Your task to perform on an android device: install app "PlayWell" Image 0: 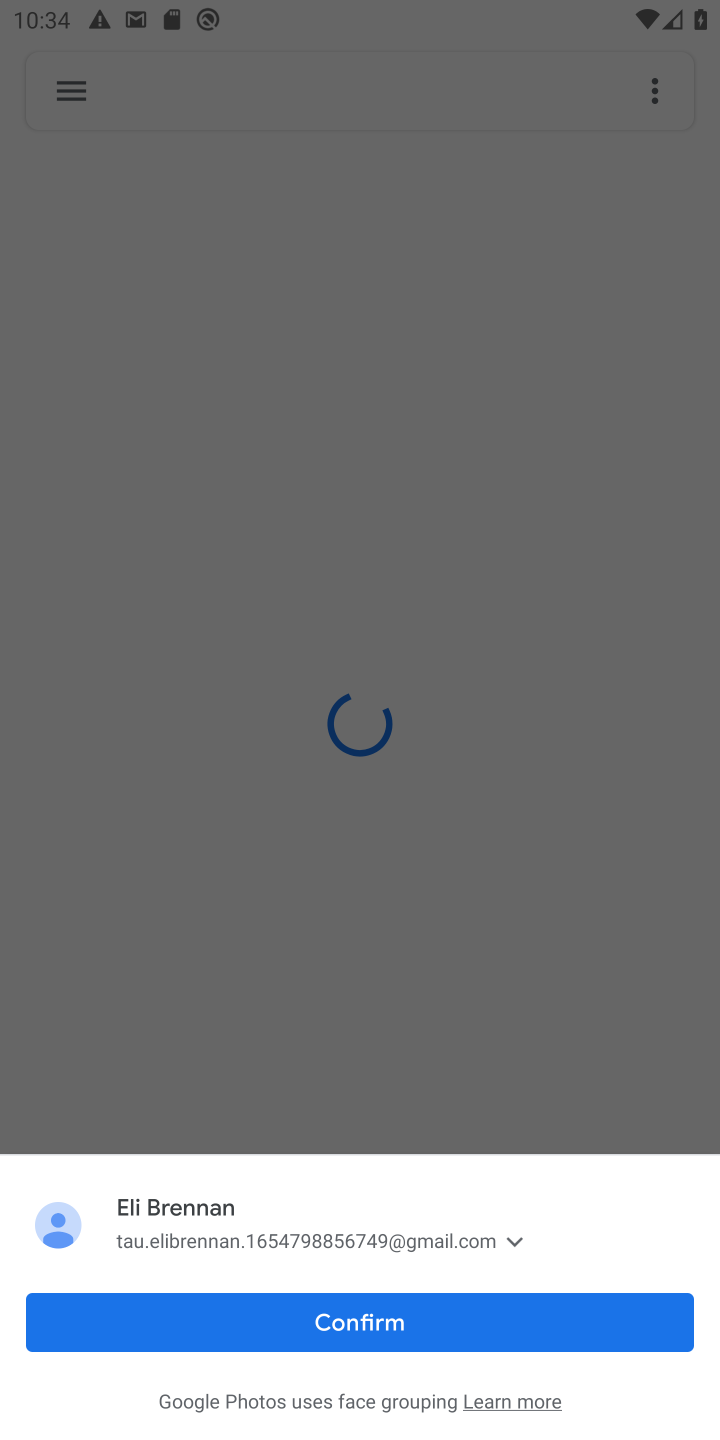
Step 0: press home button
Your task to perform on an android device: install app "PlayWell" Image 1: 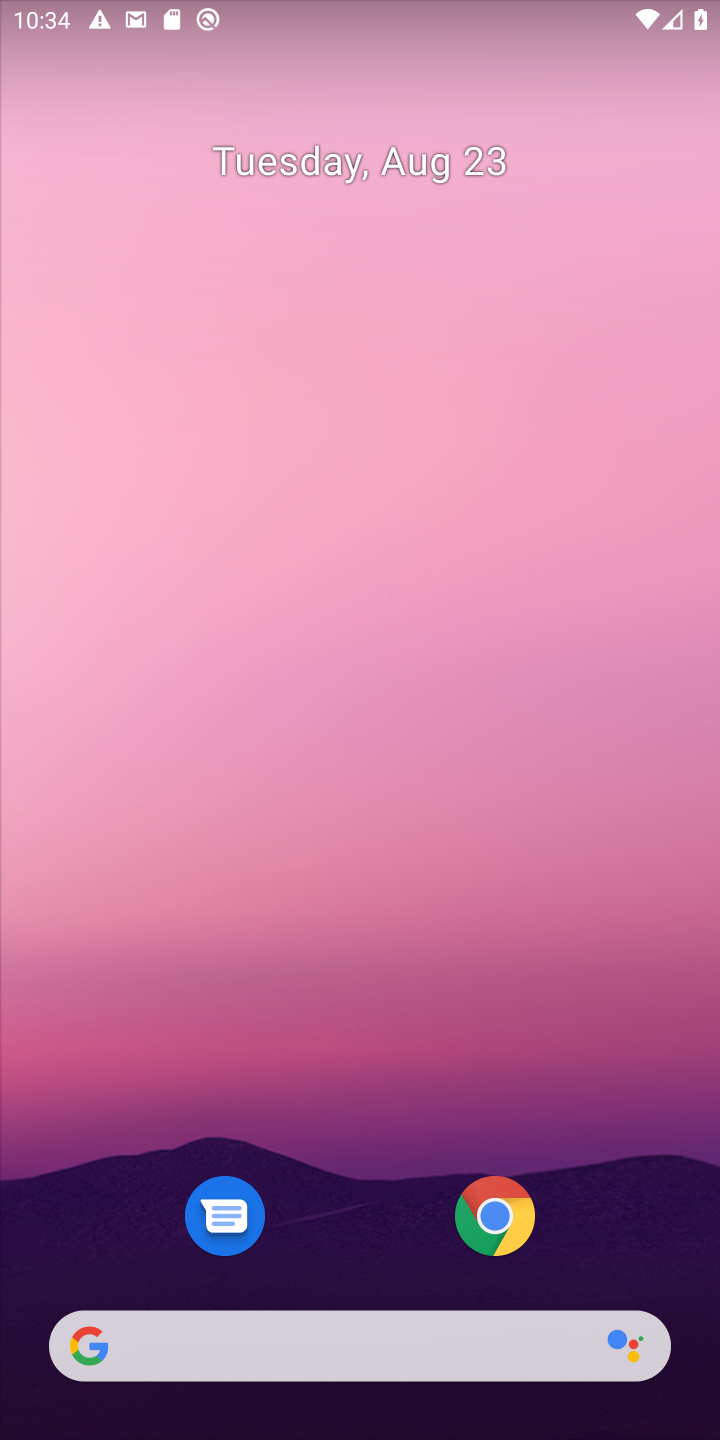
Step 1: drag from (337, 1319) to (305, 84)
Your task to perform on an android device: install app "PlayWell" Image 2: 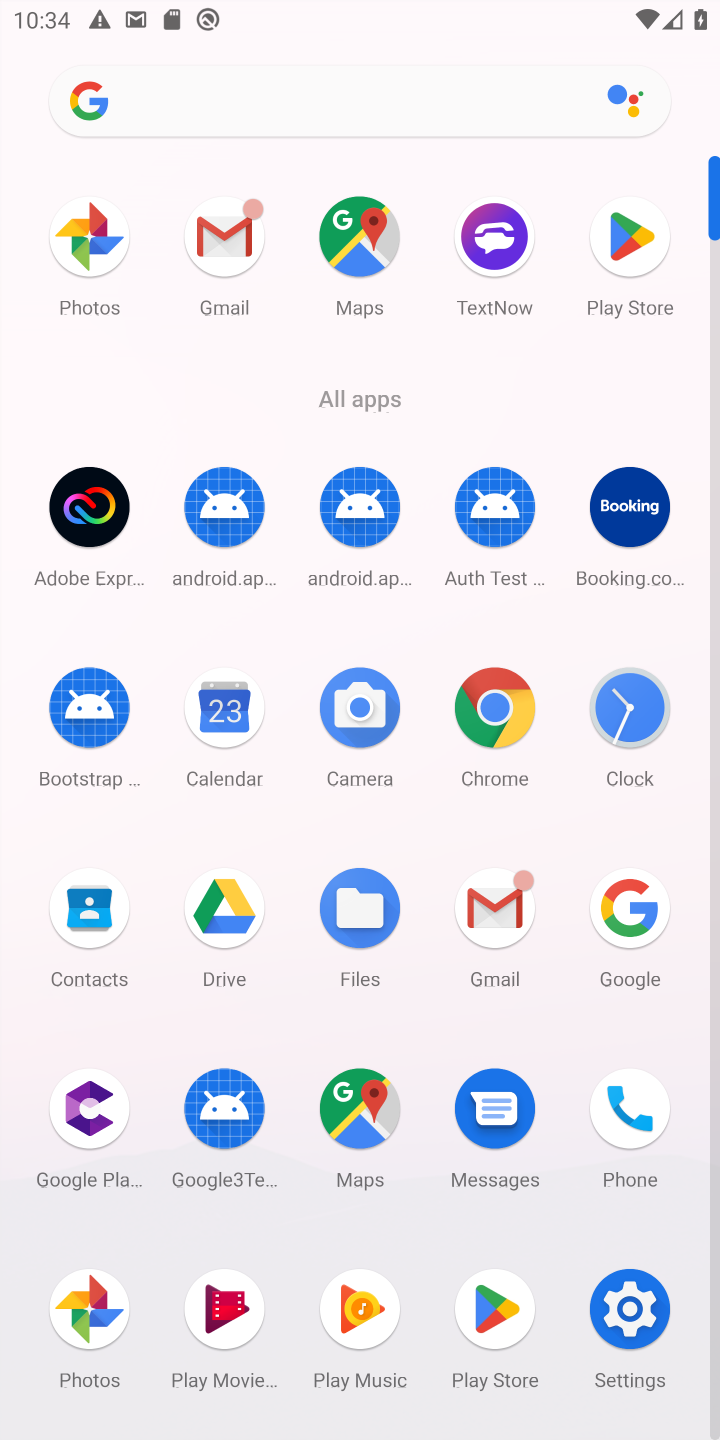
Step 2: click (628, 251)
Your task to perform on an android device: install app "PlayWell" Image 3: 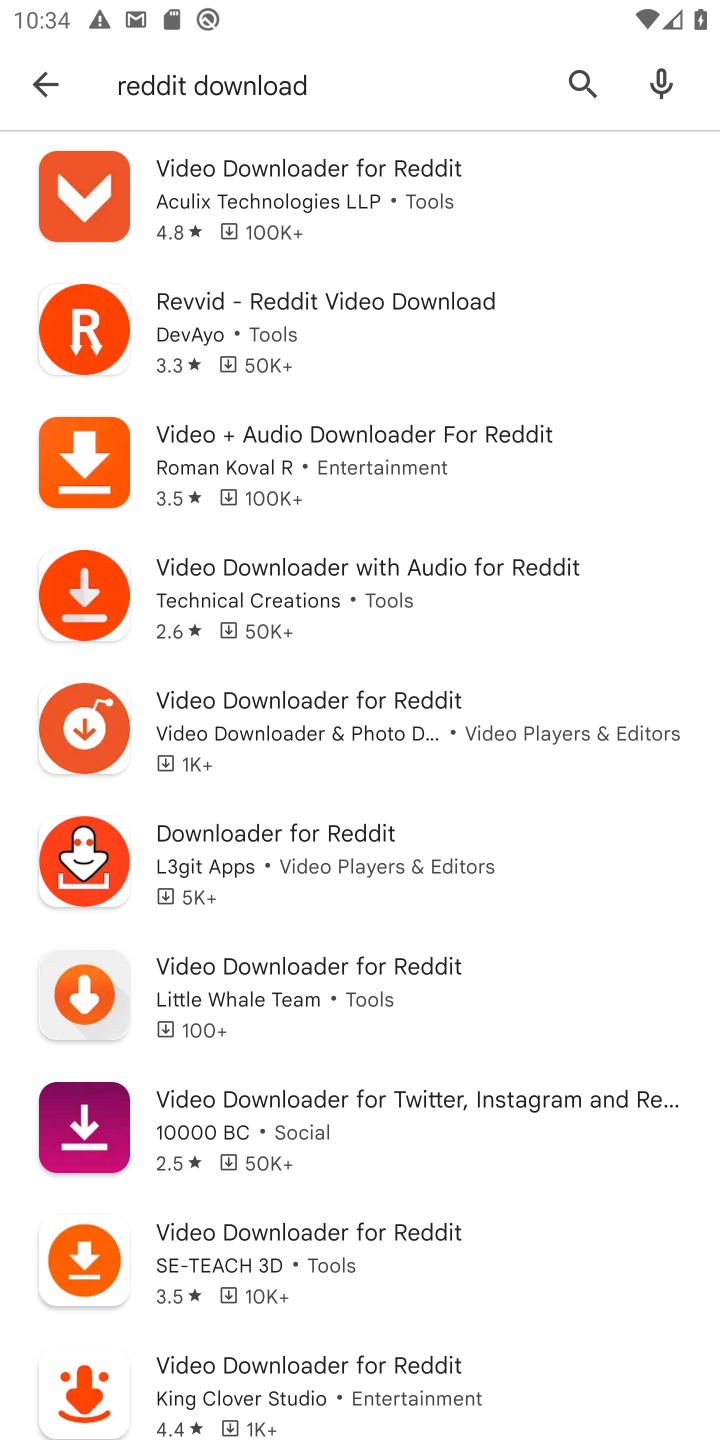
Step 3: press back button
Your task to perform on an android device: install app "PlayWell" Image 4: 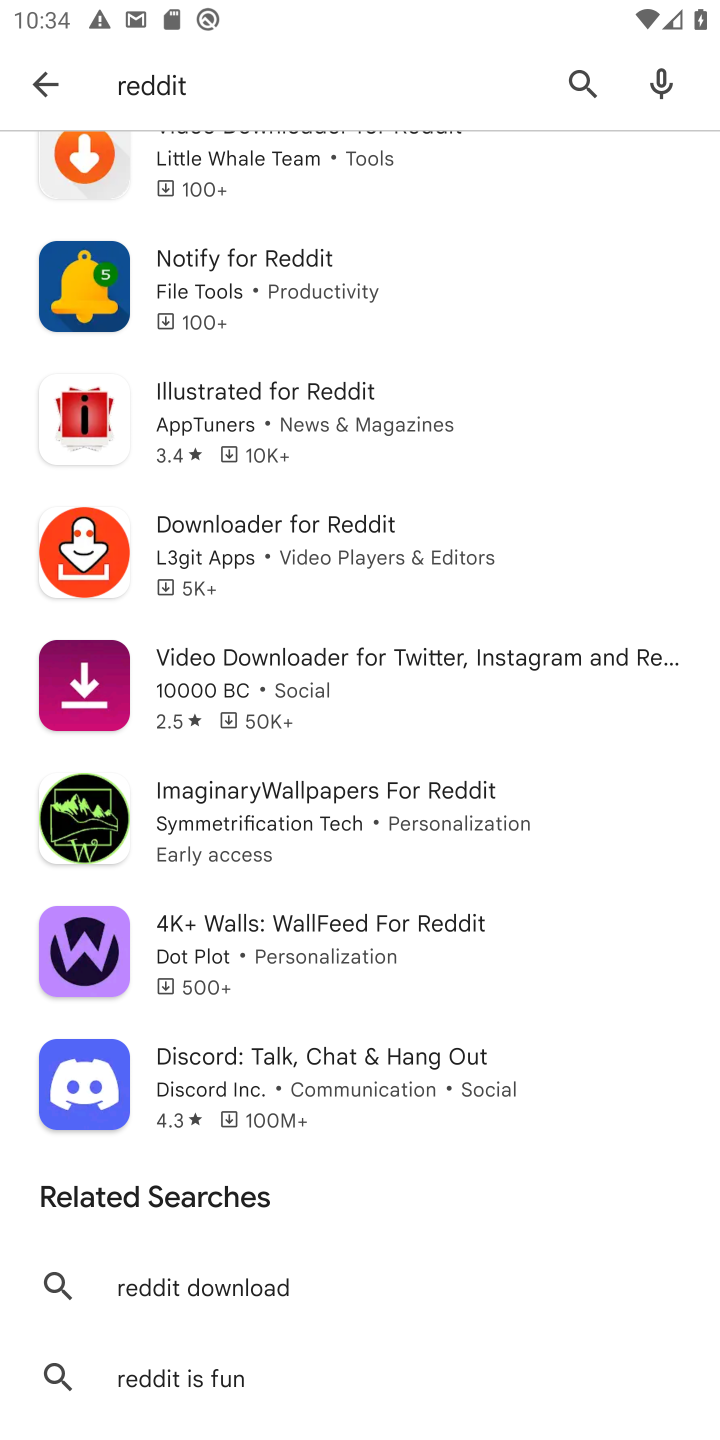
Step 4: press back button
Your task to perform on an android device: install app "PlayWell" Image 5: 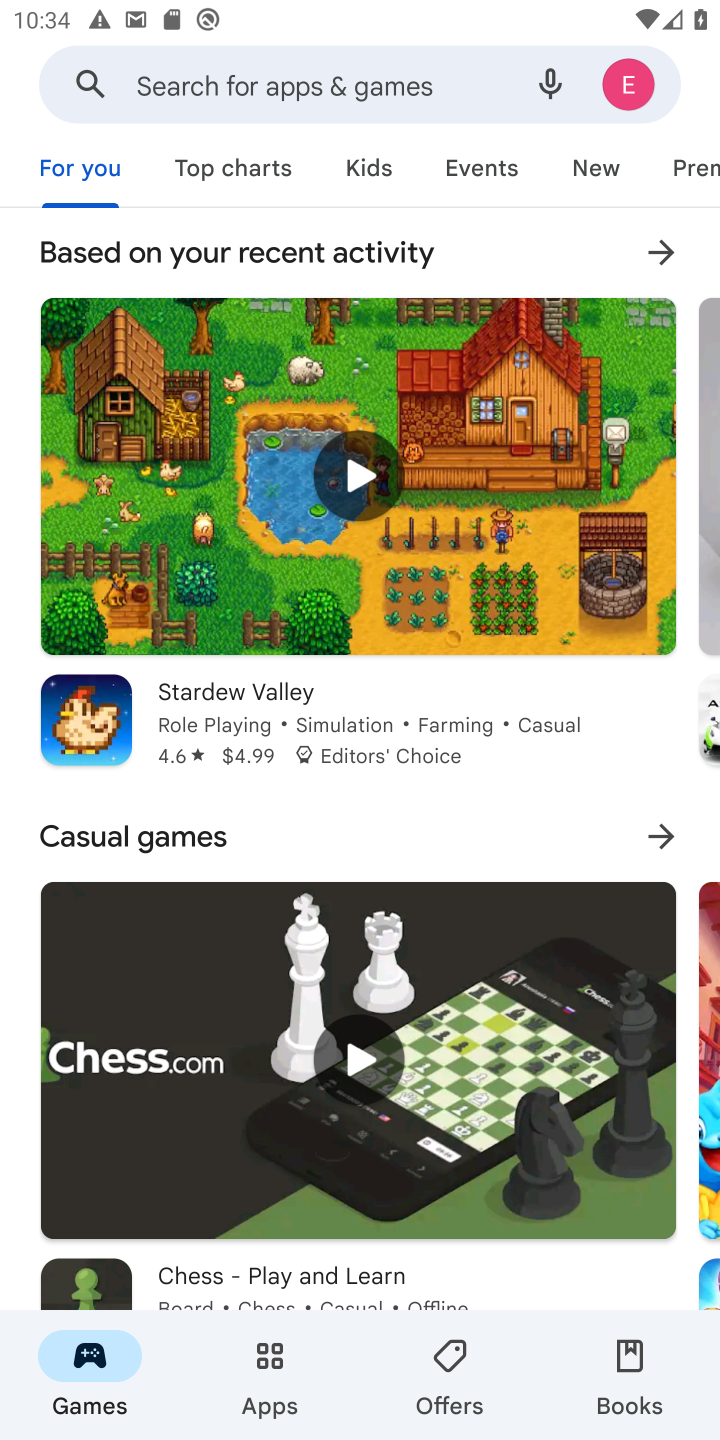
Step 5: click (344, 80)
Your task to perform on an android device: install app "PlayWell" Image 6: 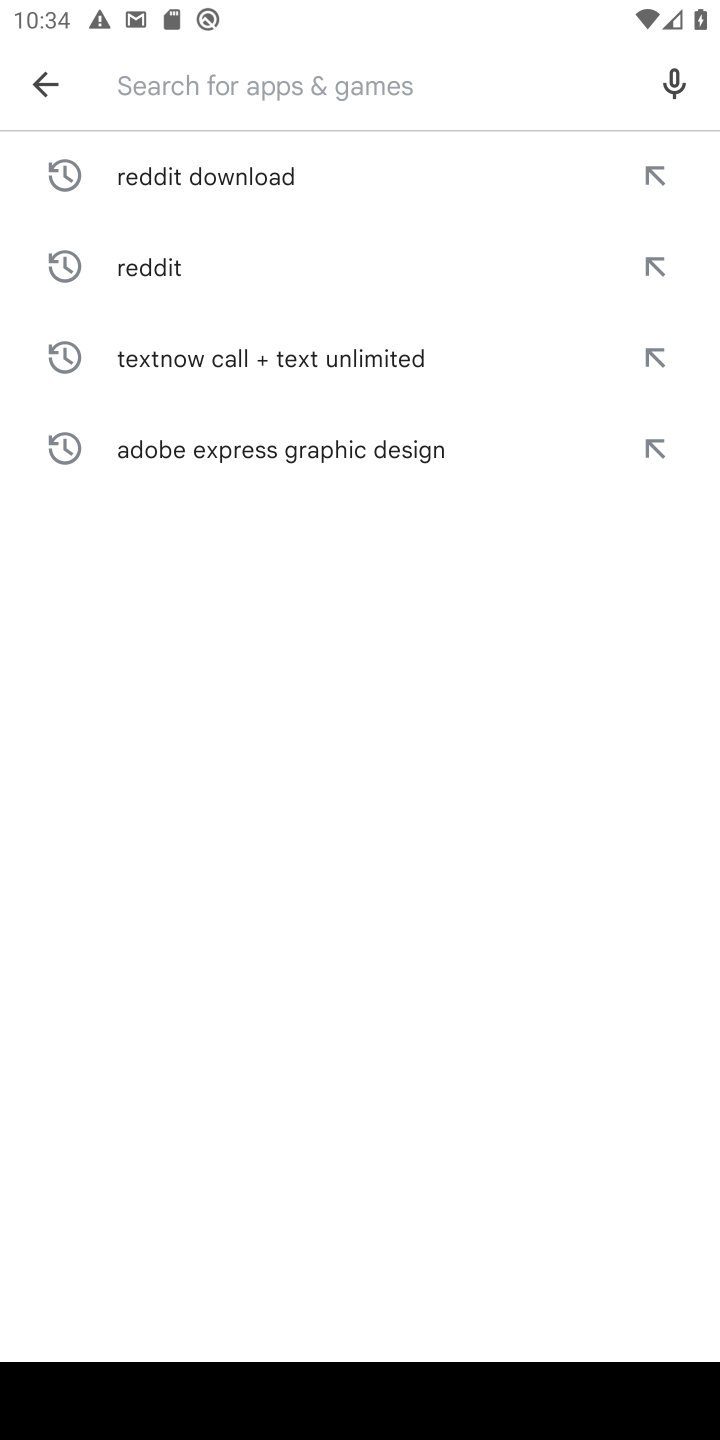
Step 6: type "PlayWell"
Your task to perform on an android device: install app "PlayWell" Image 7: 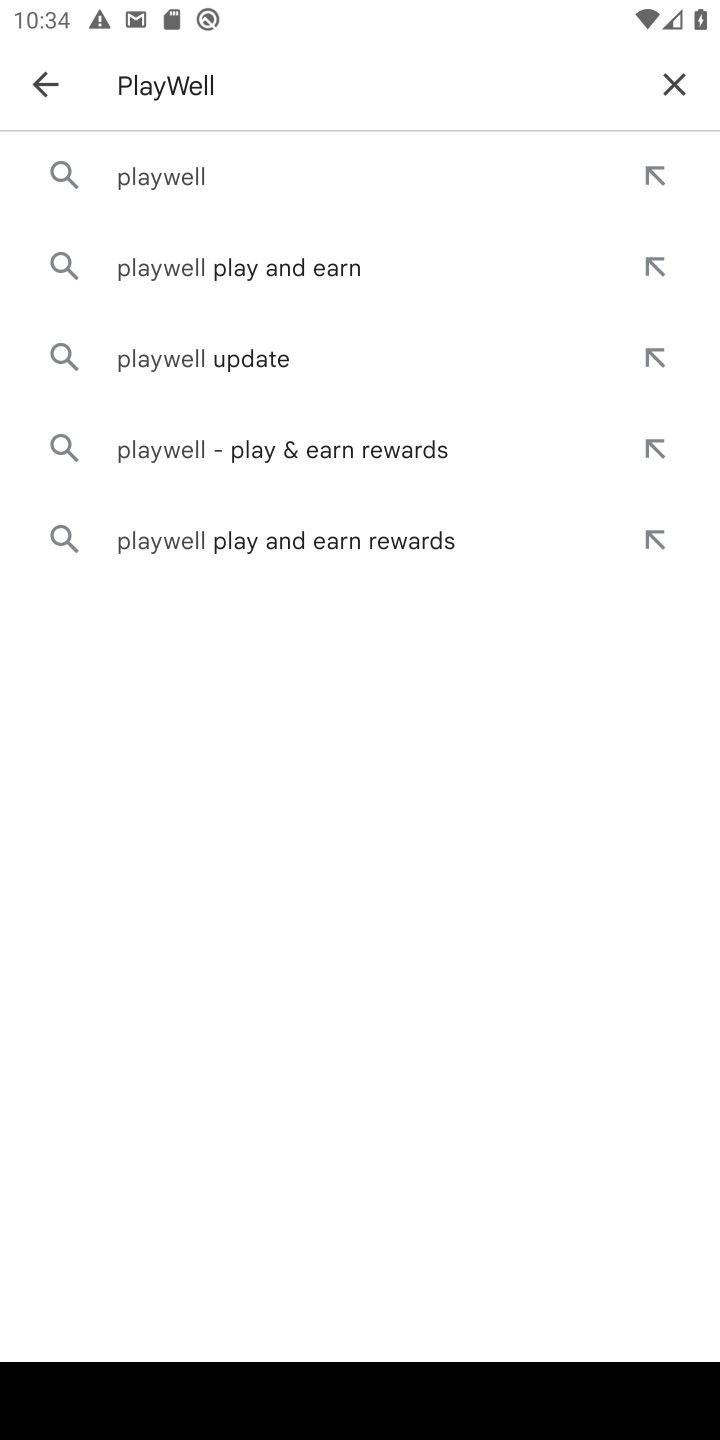
Step 7: click (169, 178)
Your task to perform on an android device: install app "PlayWell" Image 8: 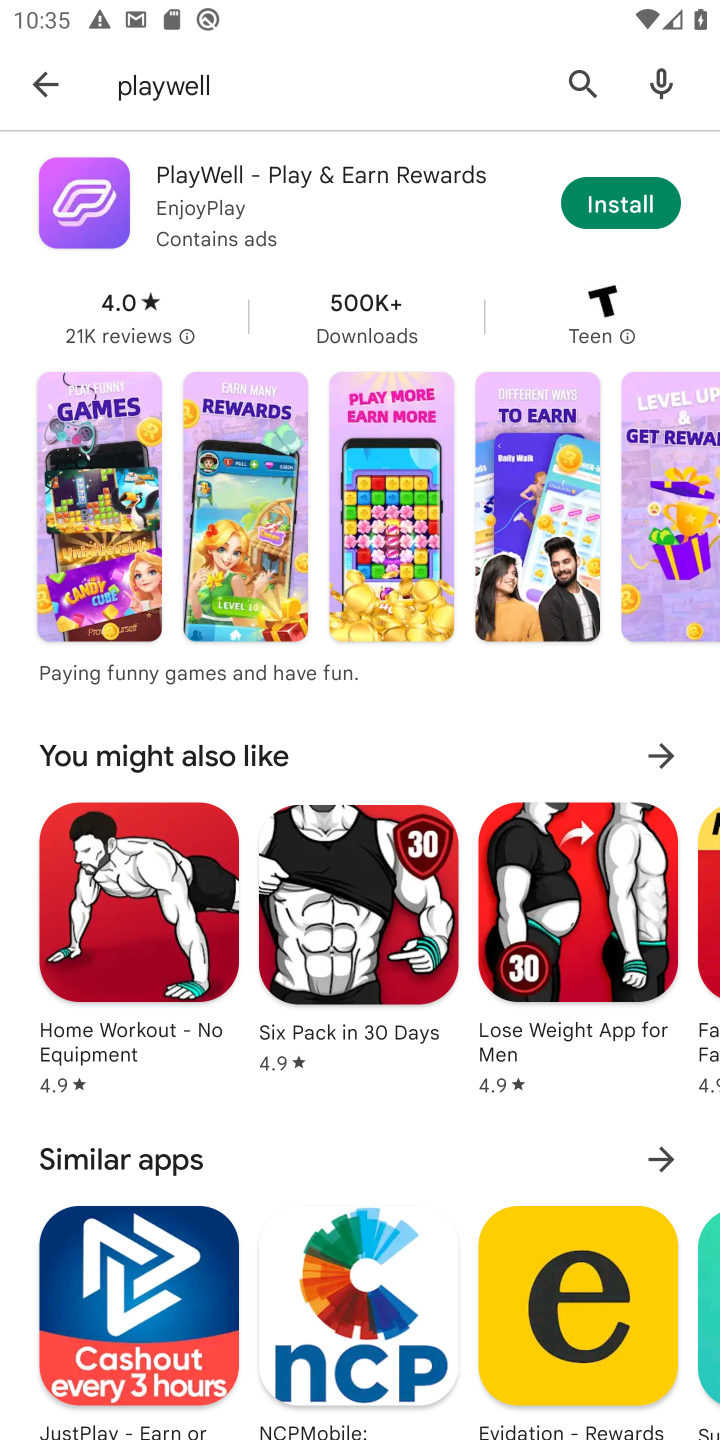
Step 8: click (628, 216)
Your task to perform on an android device: install app "PlayWell" Image 9: 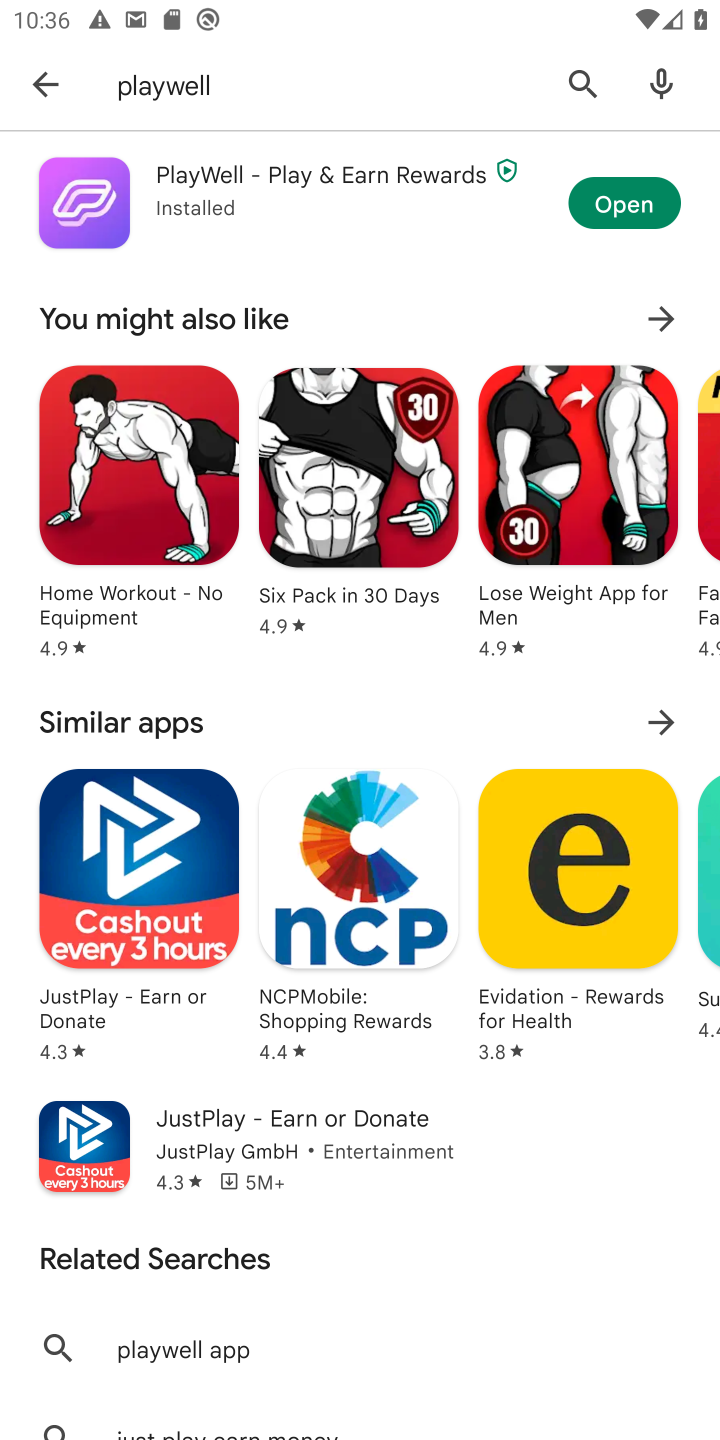
Step 9: task complete